Your task to perform on an android device: turn off wifi Image 0: 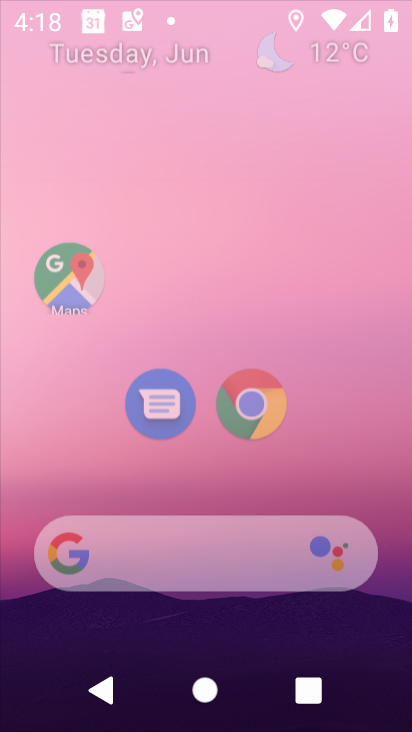
Step 0: click (300, 33)
Your task to perform on an android device: turn off wifi Image 1: 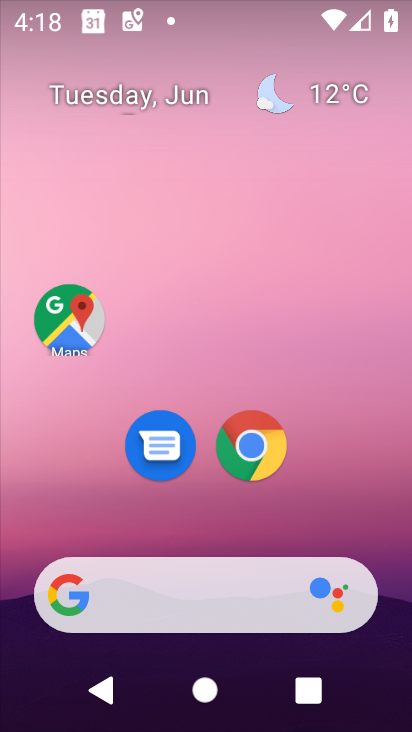
Step 1: drag from (379, 529) to (409, 221)
Your task to perform on an android device: turn off wifi Image 2: 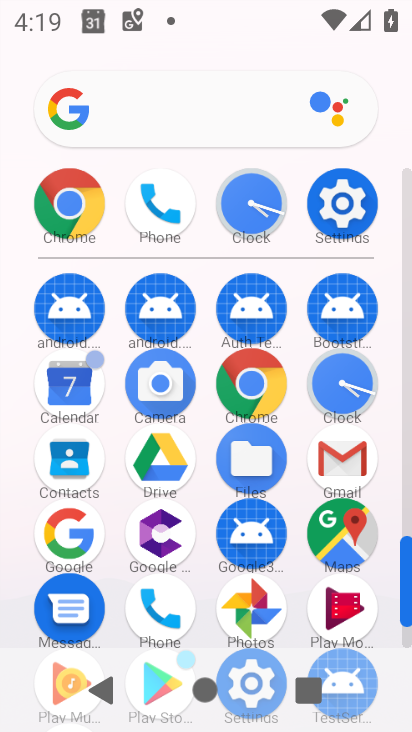
Step 2: click (364, 213)
Your task to perform on an android device: turn off wifi Image 3: 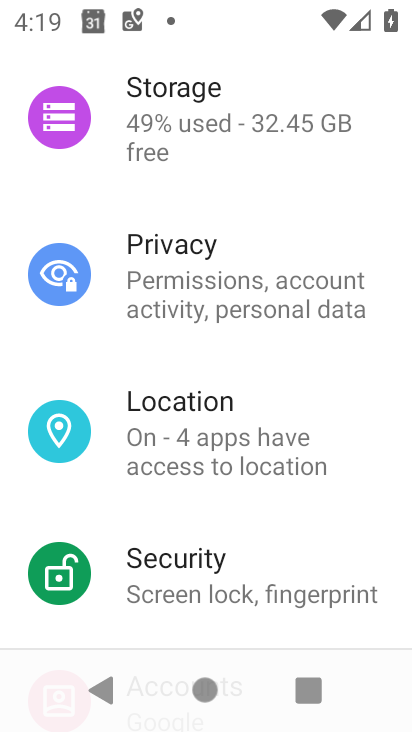
Step 3: drag from (209, 131) to (243, 591)
Your task to perform on an android device: turn off wifi Image 4: 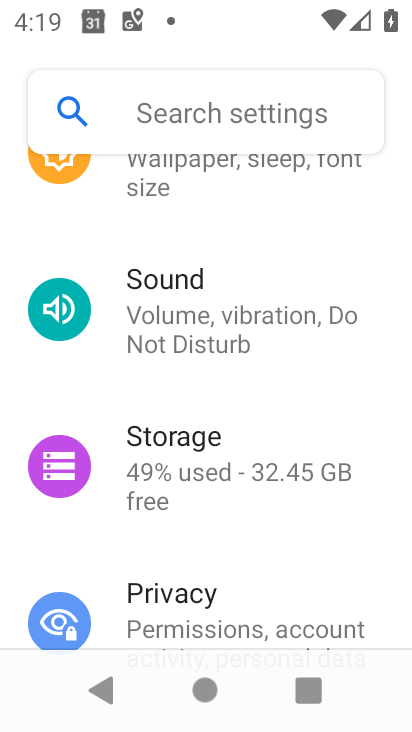
Step 4: drag from (209, 272) to (240, 594)
Your task to perform on an android device: turn off wifi Image 5: 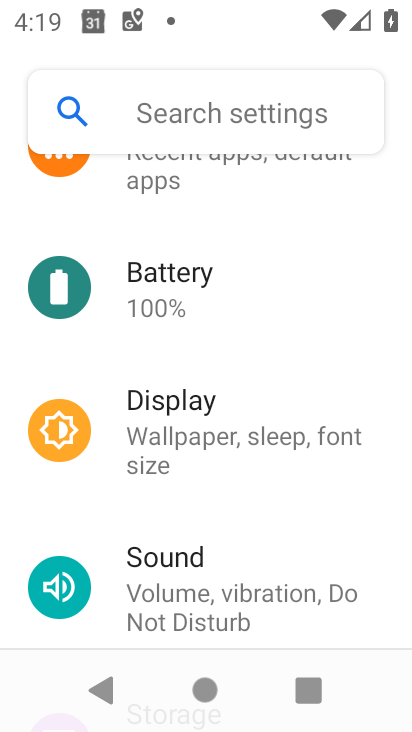
Step 5: drag from (213, 224) to (274, 625)
Your task to perform on an android device: turn off wifi Image 6: 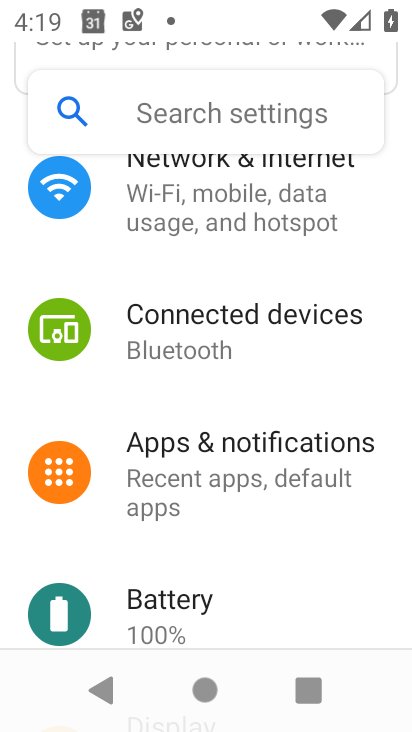
Step 6: drag from (307, 215) to (334, 583)
Your task to perform on an android device: turn off wifi Image 7: 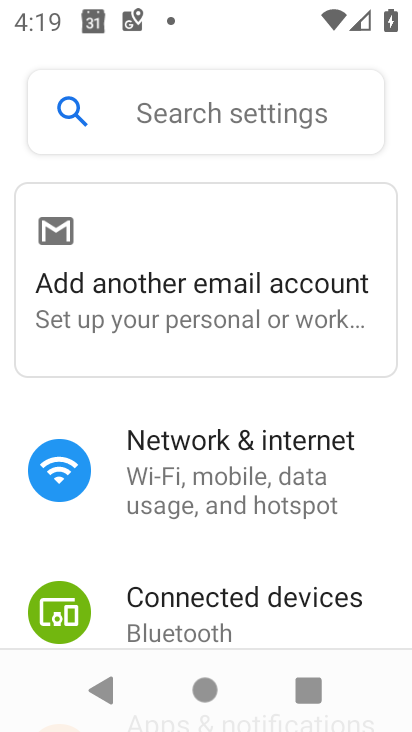
Step 7: click (240, 457)
Your task to perform on an android device: turn off wifi Image 8: 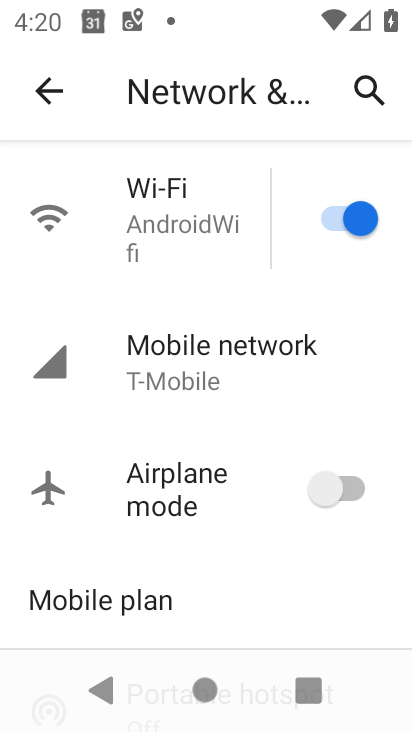
Step 8: click (364, 228)
Your task to perform on an android device: turn off wifi Image 9: 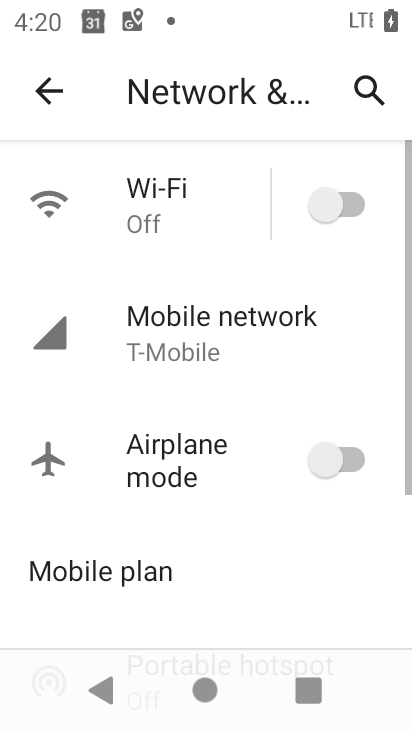
Step 9: task complete